Your task to perform on an android device: Go to location settings Image 0: 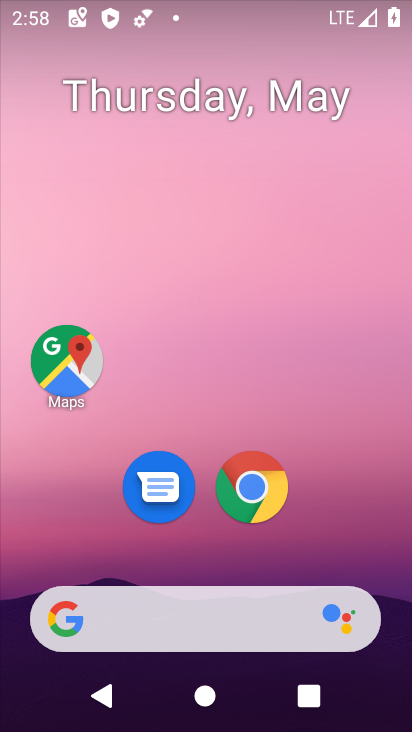
Step 0: drag from (245, 618) to (320, 153)
Your task to perform on an android device: Go to location settings Image 1: 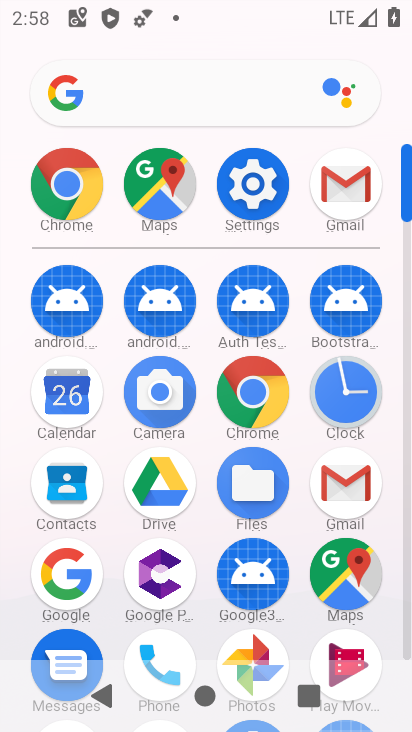
Step 1: click (253, 191)
Your task to perform on an android device: Go to location settings Image 2: 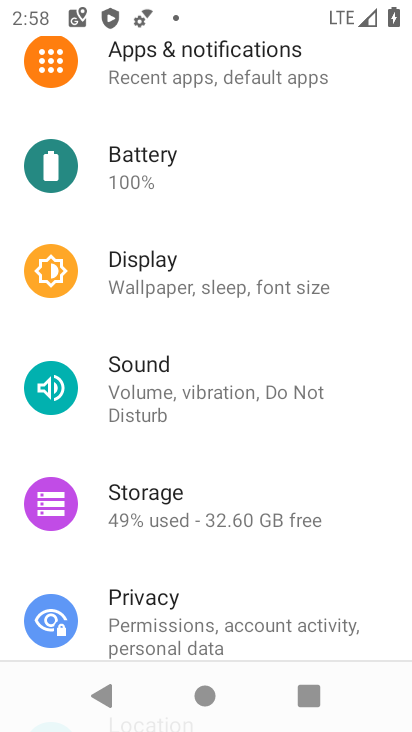
Step 2: drag from (196, 504) to (242, 148)
Your task to perform on an android device: Go to location settings Image 3: 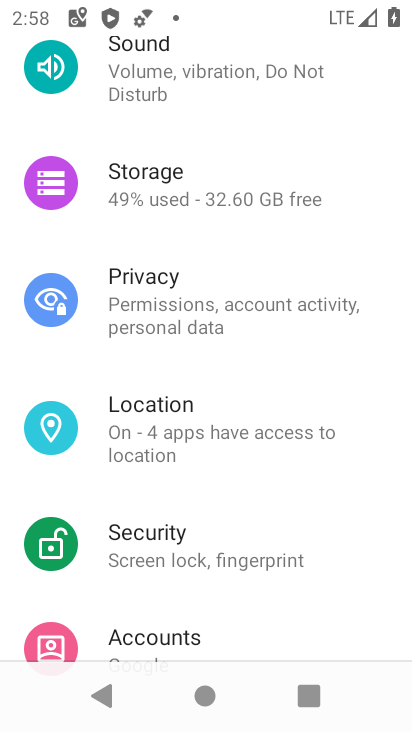
Step 3: click (214, 427)
Your task to perform on an android device: Go to location settings Image 4: 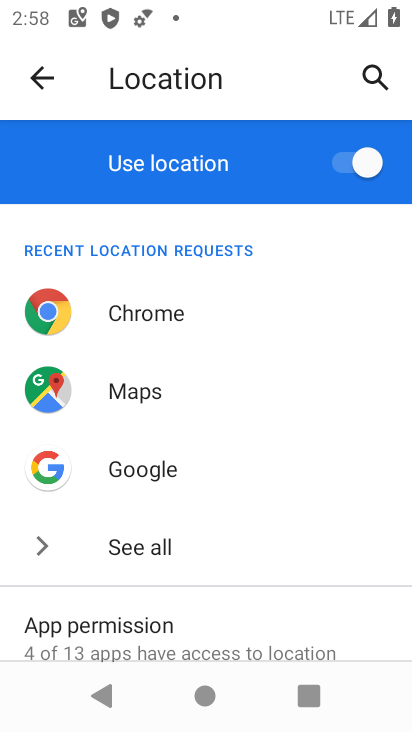
Step 4: task complete